Your task to perform on an android device: turn off translation in the chrome app Image 0: 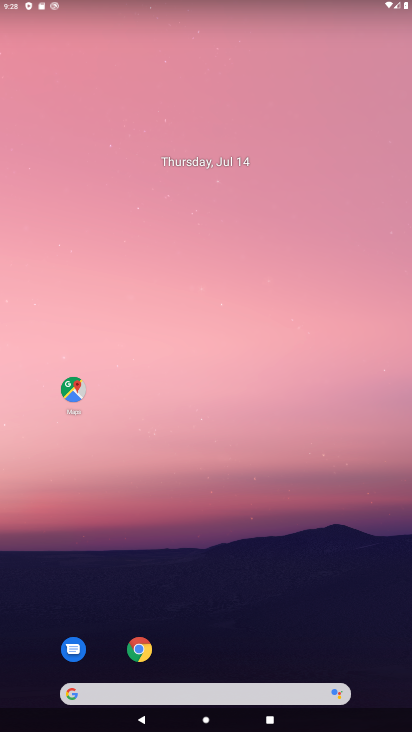
Step 0: click (138, 646)
Your task to perform on an android device: turn off translation in the chrome app Image 1: 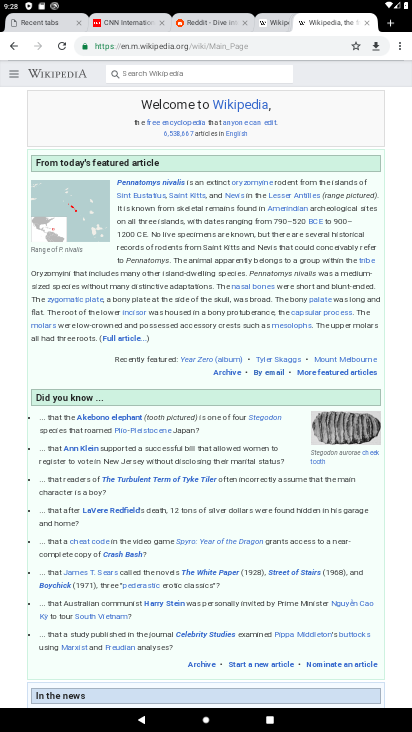
Step 1: click (394, 53)
Your task to perform on an android device: turn off translation in the chrome app Image 2: 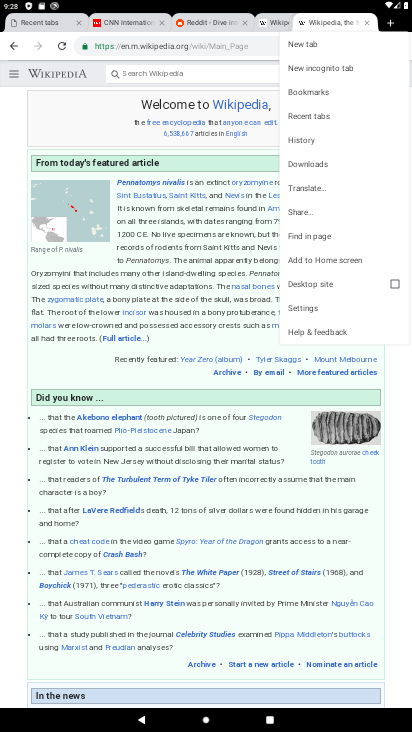
Step 2: click (307, 301)
Your task to perform on an android device: turn off translation in the chrome app Image 3: 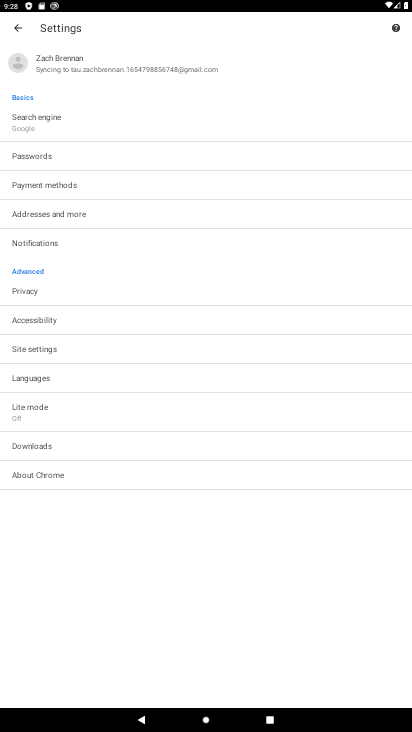
Step 3: click (41, 380)
Your task to perform on an android device: turn off translation in the chrome app Image 4: 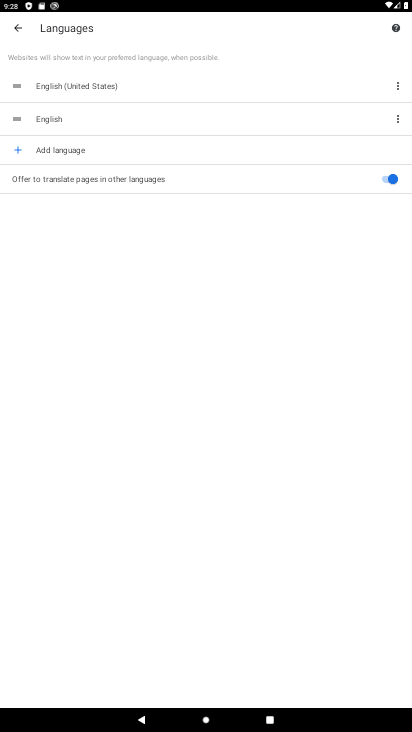
Step 4: click (384, 183)
Your task to perform on an android device: turn off translation in the chrome app Image 5: 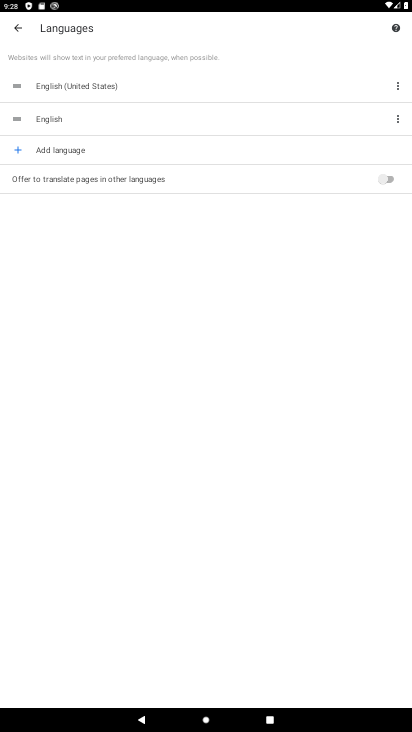
Step 5: task complete